Your task to perform on an android device: change alarm snooze length Image 0: 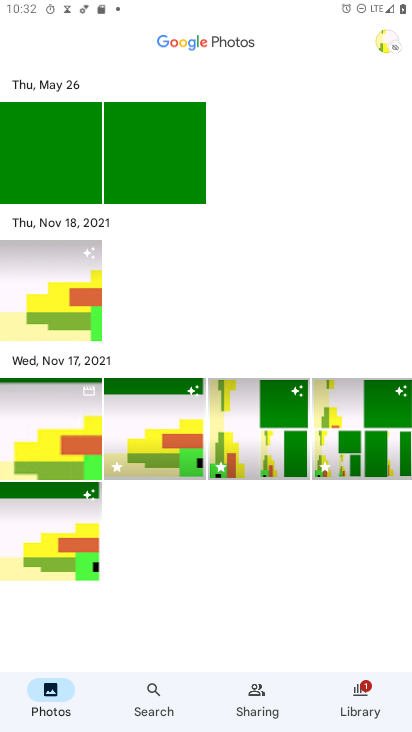
Step 0: press home button
Your task to perform on an android device: change alarm snooze length Image 1: 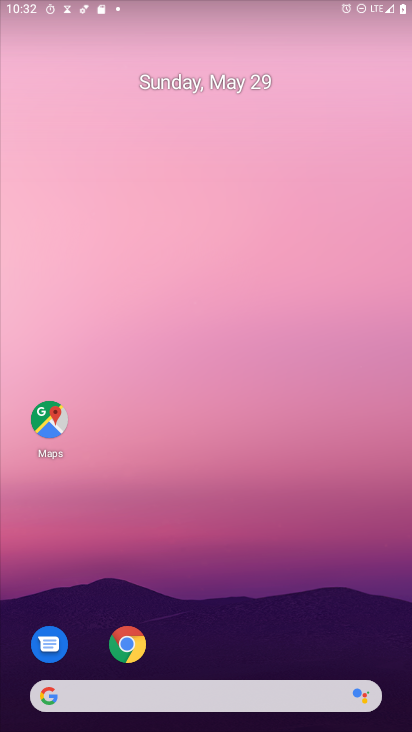
Step 1: drag from (155, 728) to (124, 84)
Your task to perform on an android device: change alarm snooze length Image 2: 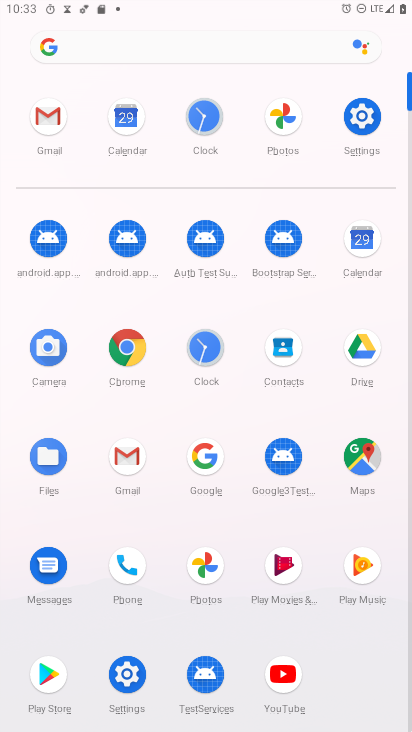
Step 2: click (192, 125)
Your task to perform on an android device: change alarm snooze length Image 3: 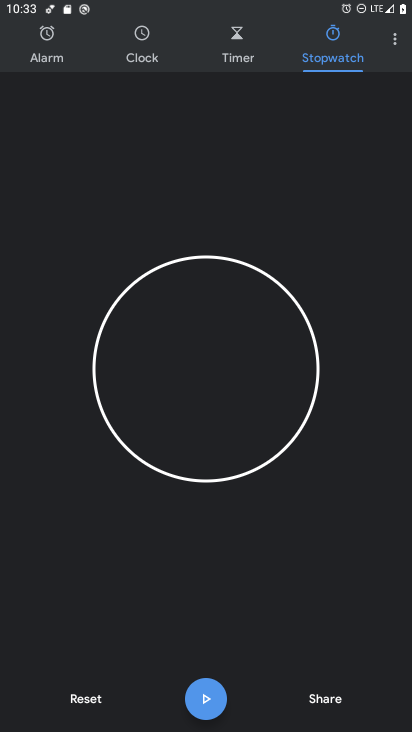
Step 3: click (399, 35)
Your task to perform on an android device: change alarm snooze length Image 4: 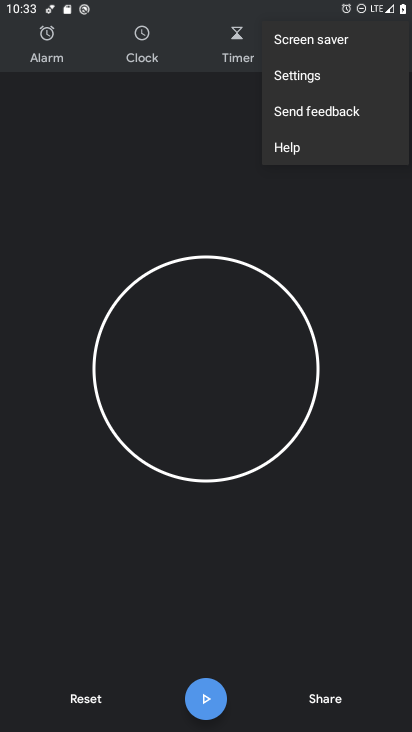
Step 4: click (334, 91)
Your task to perform on an android device: change alarm snooze length Image 5: 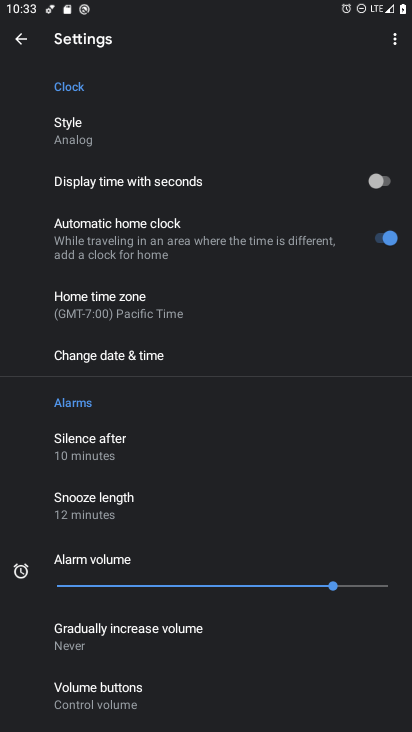
Step 5: click (140, 511)
Your task to perform on an android device: change alarm snooze length Image 6: 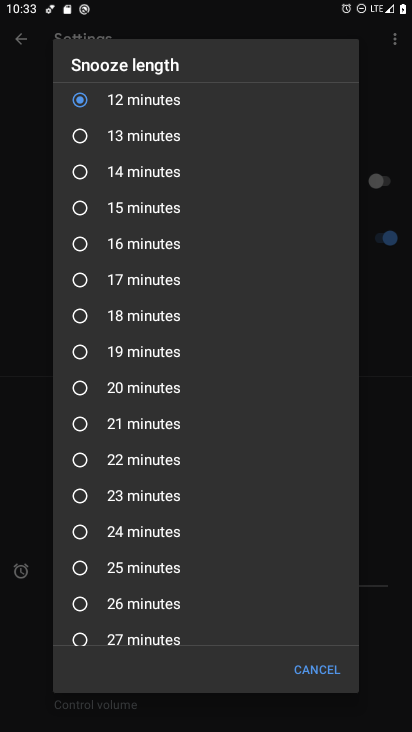
Step 6: click (121, 138)
Your task to perform on an android device: change alarm snooze length Image 7: 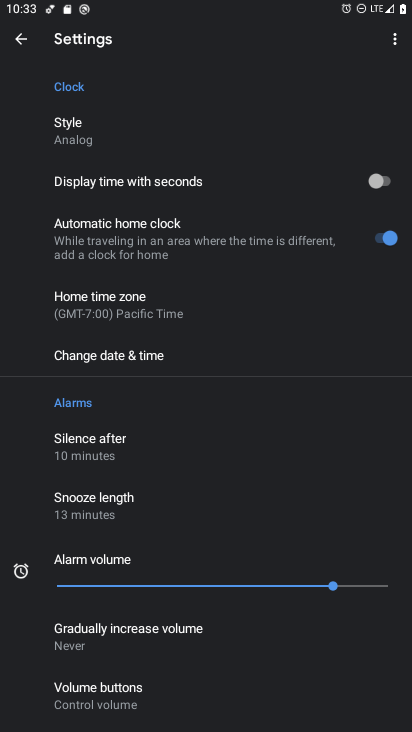
Step 7: task complete